Your task to perform on an android device: Open Google Image 0: 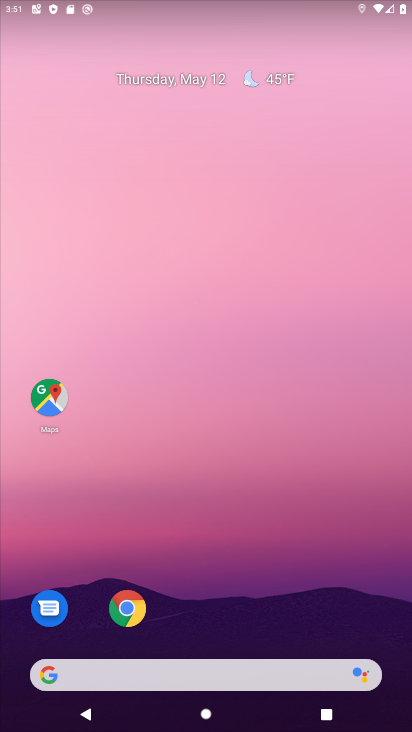
Step 0: press home button
Your task to perform on an android device: Open Google Image 1: 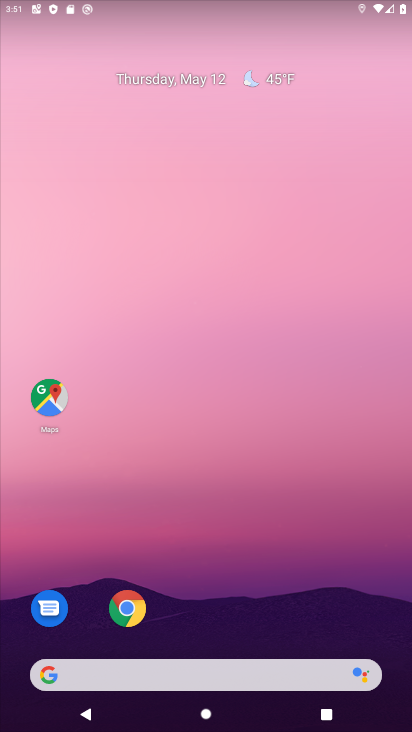
Step 1: drag from (171, 587) to (171, 42)
Your task to perform on an android device: Open Google Image 2: 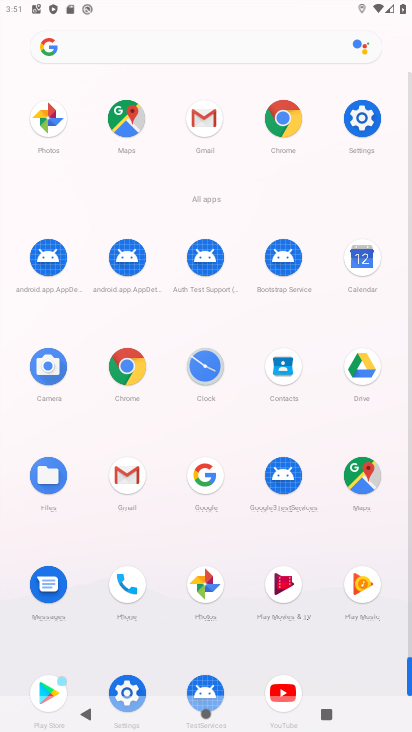
Step 2: click (192, 473)
Your task to perform on an android device: Open Google Image 3: 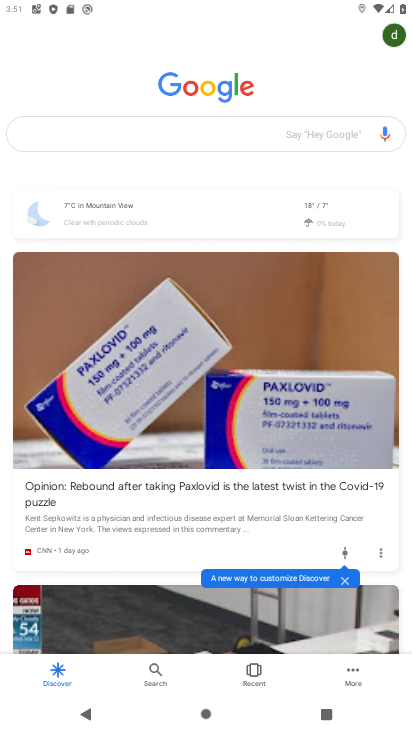
Step 3: task complete